Your task to perform on an android device: Do I have any events this weekend? Image 0: 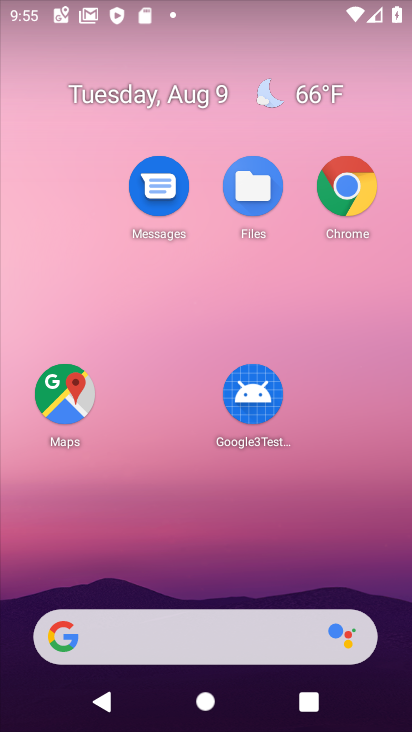
Step 0: click (122, 95)
Your task to perform on an android device: Do I have any events this weekend? Image 1: 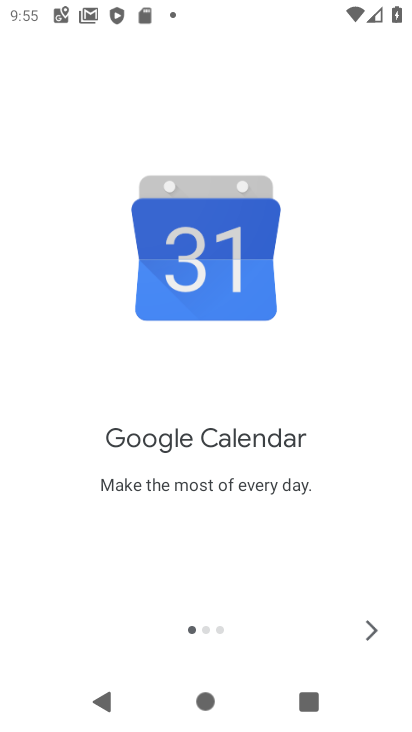
Step 1: click (382, 639)
Your task to perform on an android device: Do I have any events this weekend? Image 2: 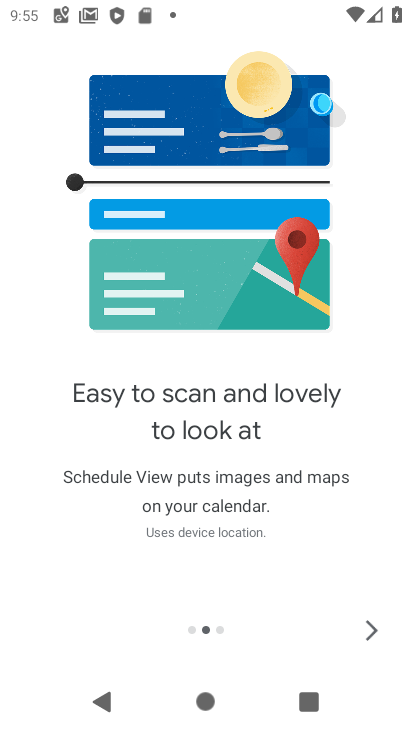
Step 2: click (382, 639)
Your task to perform on an android device: Do I have any events this weekend? Image 3: 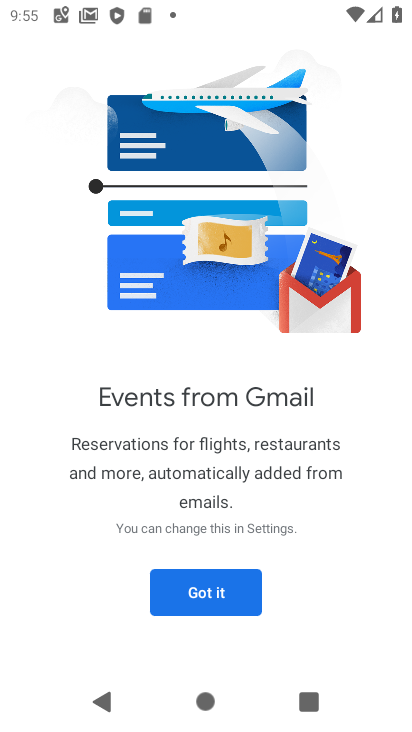
Step 3: click (204, 599)
Your task to perform on an android device: Do I have any events this weekend? Image 4: 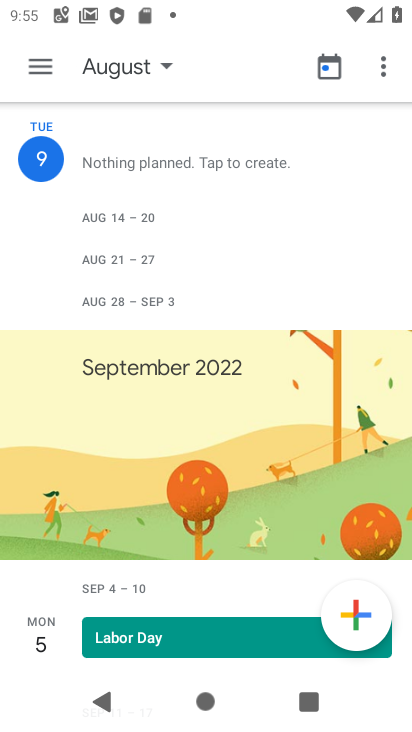
Step 4: click (130, 75)
Your task to perform on an android device: Do I have any events this weekend? Image 5: 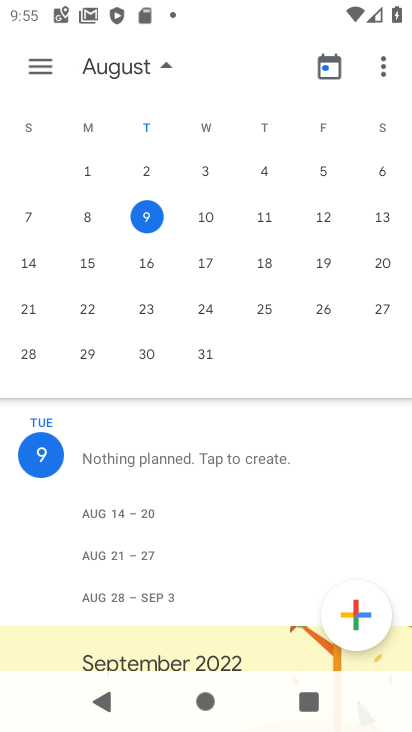
Step 5: click (384, 213)
Your task to perform on an android device: Do I have any events this weekend? Image 6: 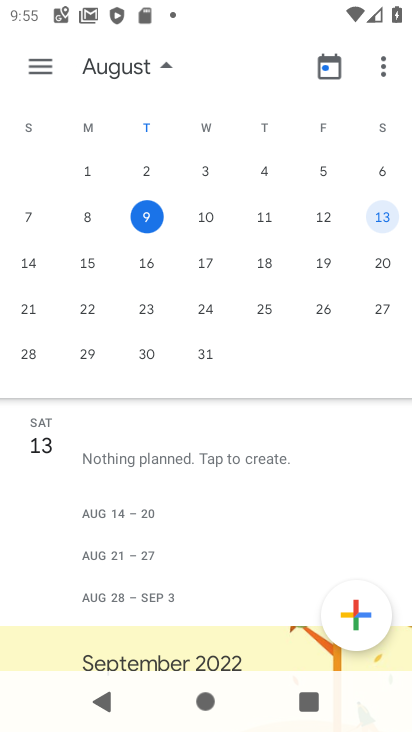
Step 6: task complete